Your task to perform on an android device: all mails in gmail Image 0: 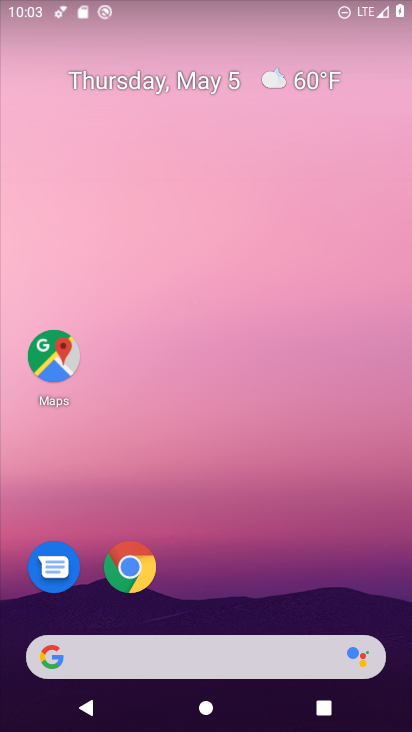
Step 0: drag from (227, 730) to (232, 136)
Your task to perform on an android device: all mails in gmail Image 1: 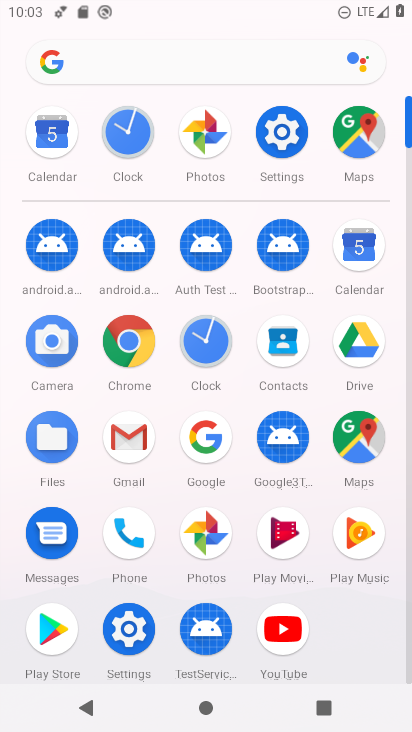
Step 1: click (126, 444)
Your task to perform on an android device: all mails in gmail Image 2: 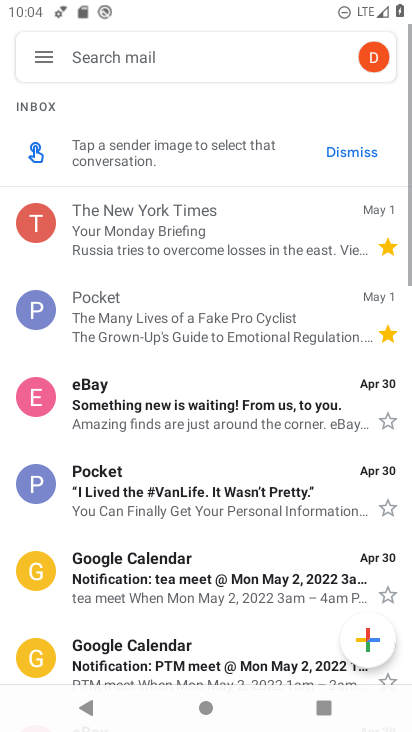
Step 2: click (35, 55)
Your task to perform on an android device: all mails in gmail Image 3: 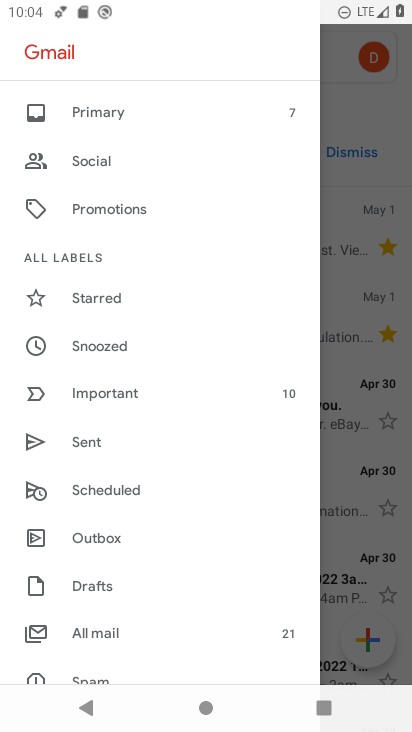
Step 3: click (107, 631)
Your task to perform on an android device: all mails in gmail Image 4: 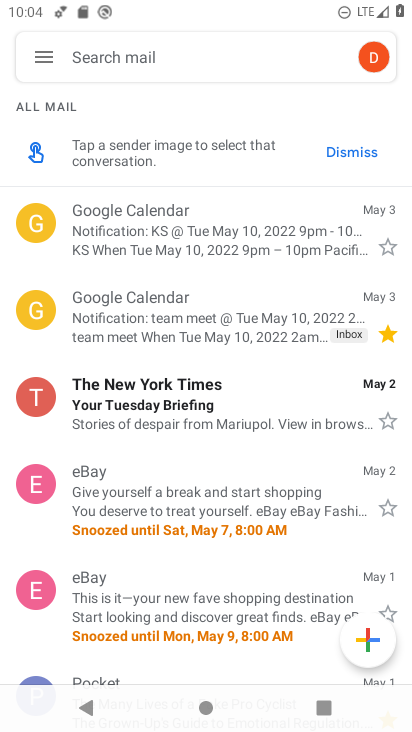
Step 4: task complete